Your task to perform on an android device: Play the last video I watched on Youtube Image 0: 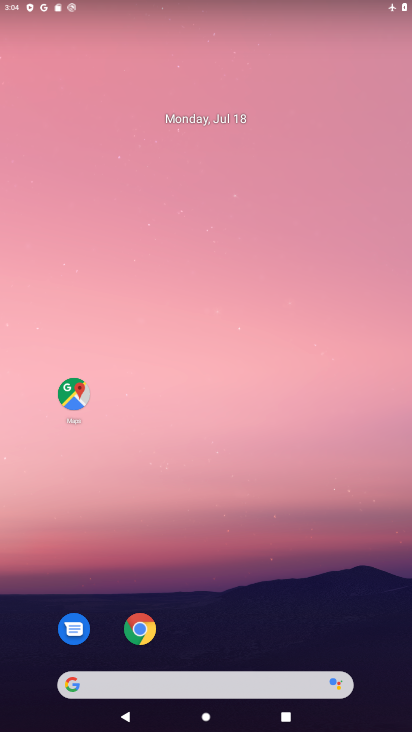
Step 0: drag from (207, 663) to (163, 93)
Your task to perform on an android device: Play the last video I watched on Youtube Image 1: 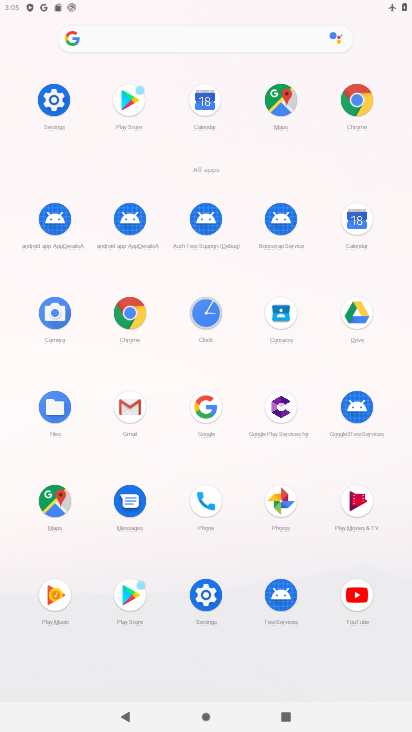
Step 1: click (366, 598)
Your task to perform on an android device: Play the last video I watched on Youtube Image 2: 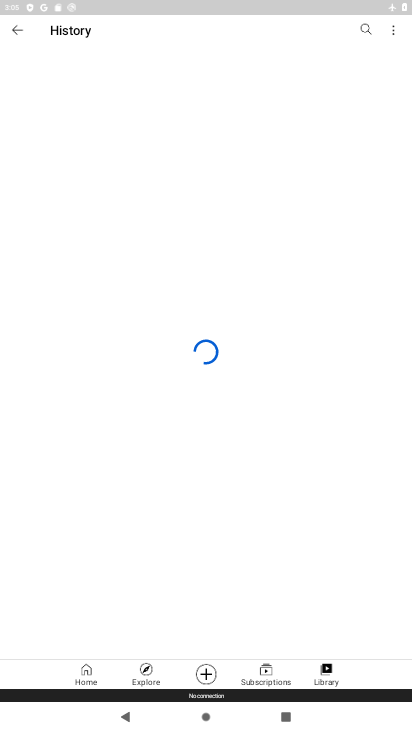
Step 2: click (371, 28)
Your task to perform on an android device: Play the last video I watched on Youtube Image 3: 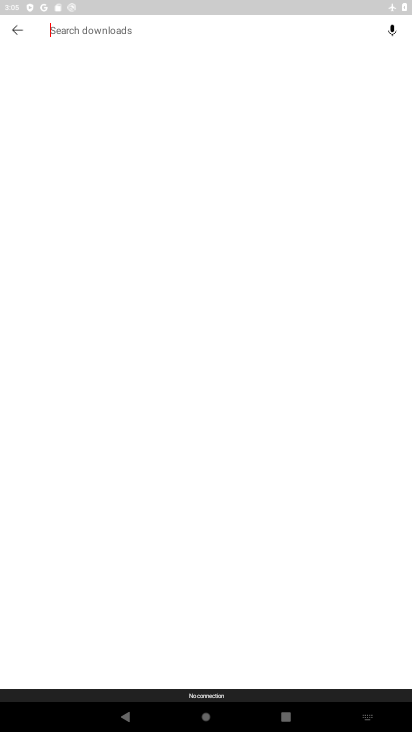
Step 3: click (14, 23)
Your task to perform on an android device: Play the last video I watched on Youtube Image 4: 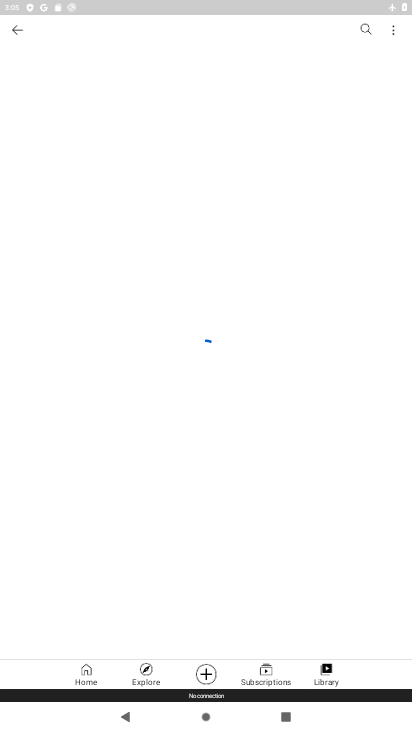
Step 4: click (322, 673)
Your task to perform on an android device: Play the last video I watched on Youtube Image 5: 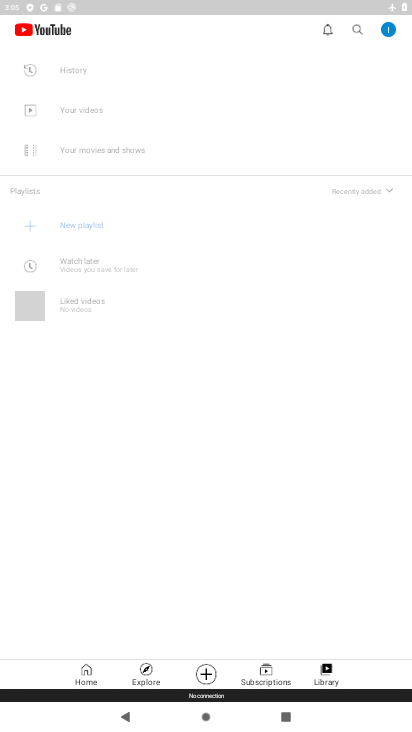
Step 5: task complete